Your task to perform on an android device: toggle wifi Image 0: 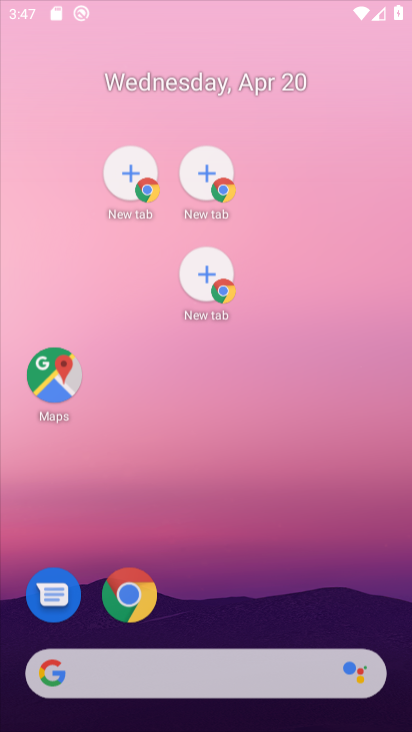
Step 0: drag from (147, 279) to (107, 63)
Your task to perform on an android device: toggle wifi Image 1: 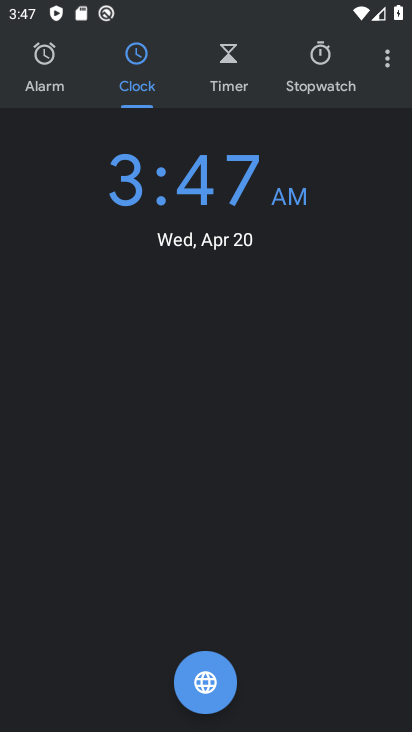
Step 1: press home button
Your task to perform on an android device: toggle wifi Image 2: 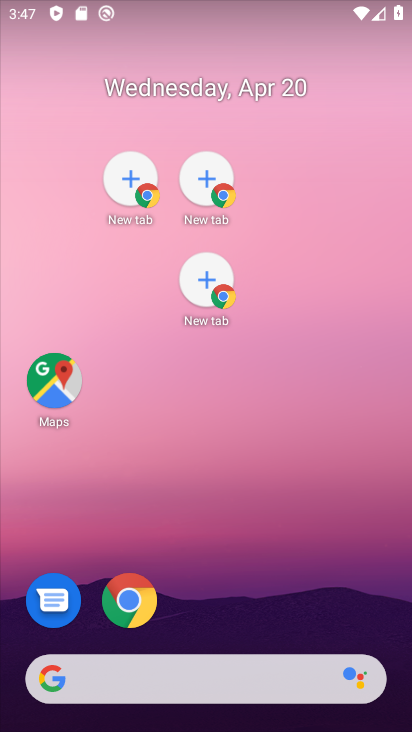
Step 2: drag from (308, 655) to (237, 140)
Your task to perform on an android device: toggle wifi Image 3: 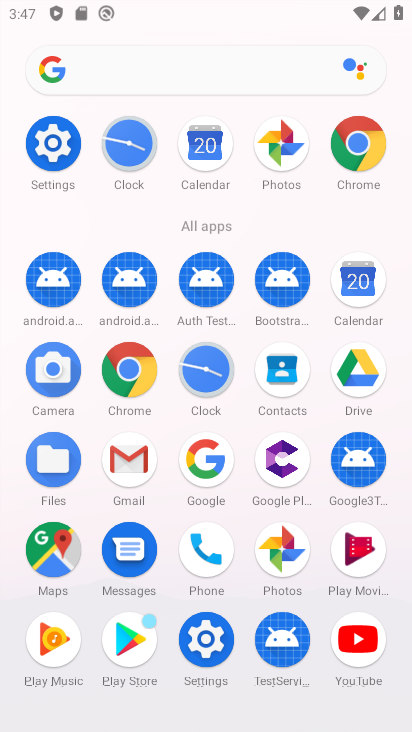
Step 3: drag from (244, 556) to (174, 15)
Your task to perform on an android device: toggle wifi Image 4: 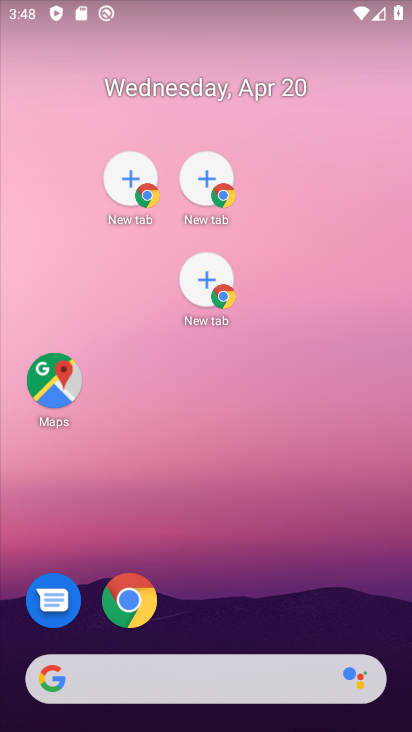
Step 4: drag from (323, 647) to (213, 7)
Your task to perform on an android device: toggle wifi Image 5: 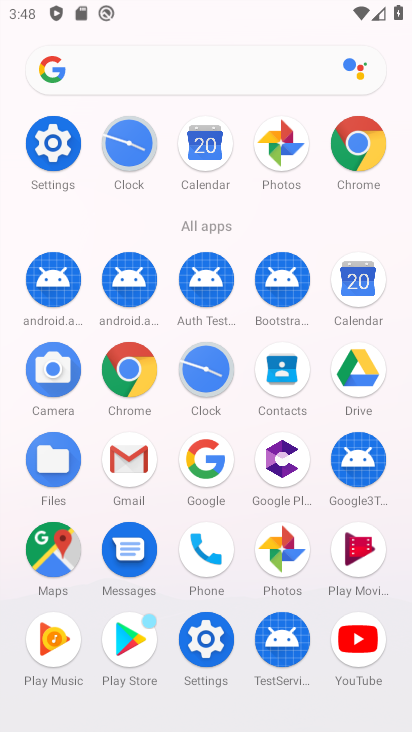
Step 5: click (53, 159)
Your task to perform on an android device: toggle wifi Image 6: 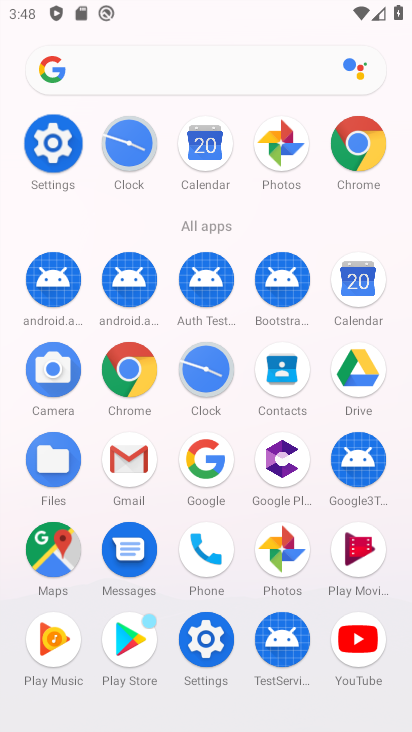
Step 6: click (53, 159)
Your task to perform on an android device: toggle wifi Image 7: 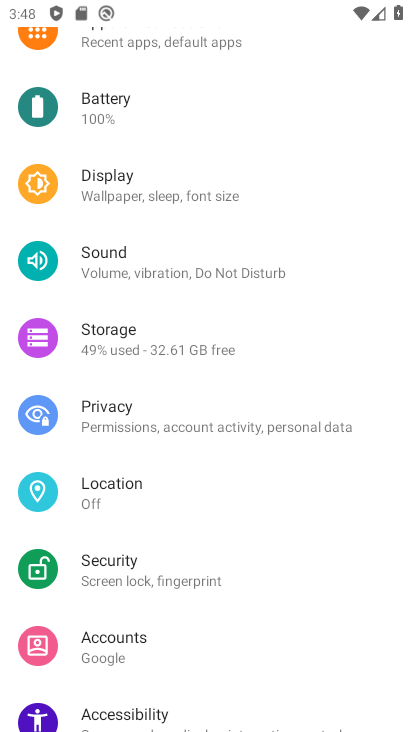
Step 7: drag from (125, 161) to (185, 493)
Your task to perform on an android device: toggle wifi Image 8: 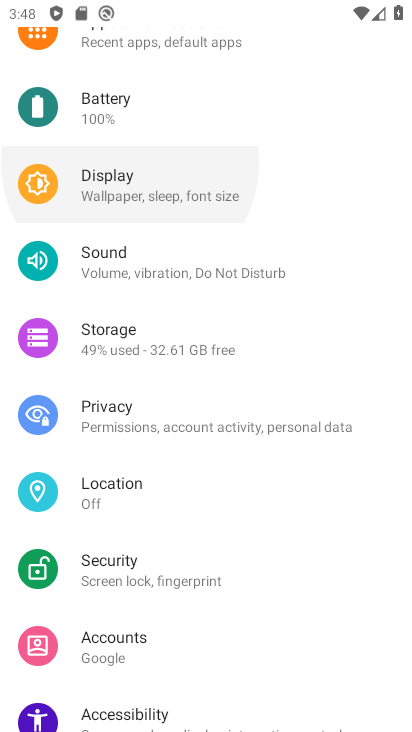
Step 8: drag from (169, 205) to (182, 402)
Your task to perform on an android device: toggle wifi Image 9: 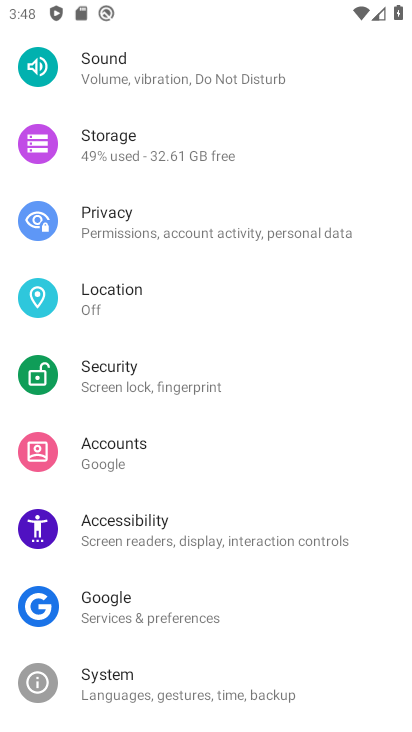
Step 9: drag from (183, 183) to (227, 420)
Your task to perform on an android device: toggle wifi Image 10: 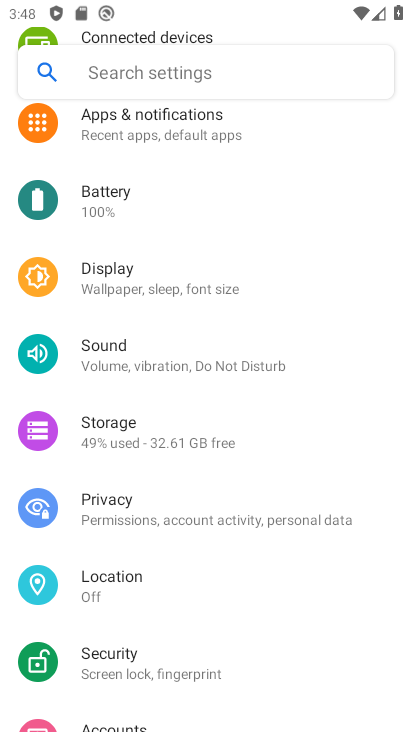
Step 10: drag from (173, 130) to (265, 417)
Your task to perform on an android device: toggle wifi Image 11: 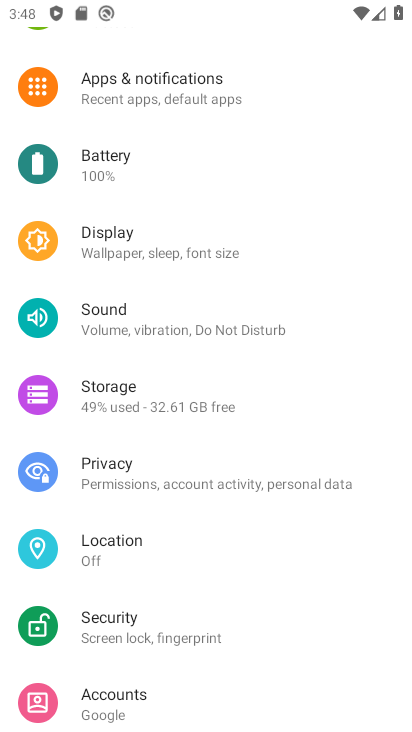
Step 11: drag from (116, 178) to (175, 382)
Your task to perform on an android device: toggle wifi Image 12: 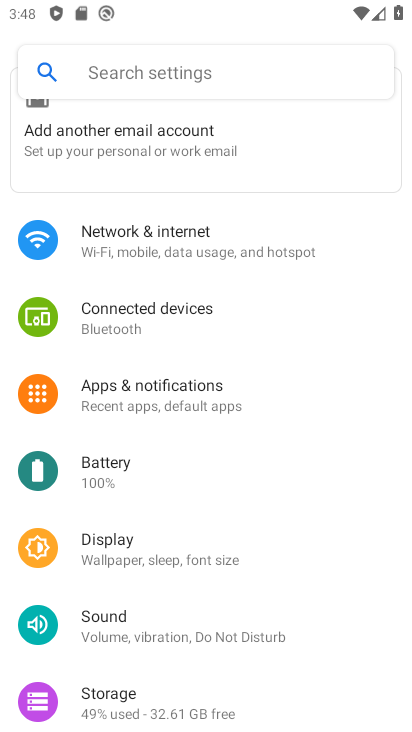
Step 12: click (162, 241)
Your task to perform on an android device: toggle wifi Image 13: 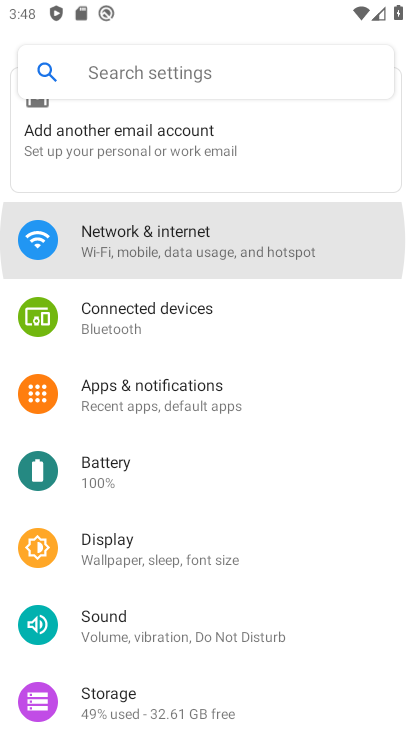
Step 13: click (162, 242)
Your task to perform on an android device: toggle wifi Image 14: 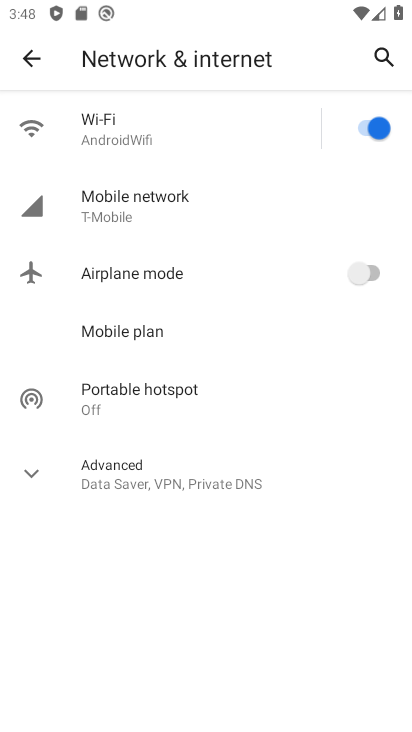
Step 14: click (376, 133)
Your task to perform on an android device: toggle wifi Image 15: 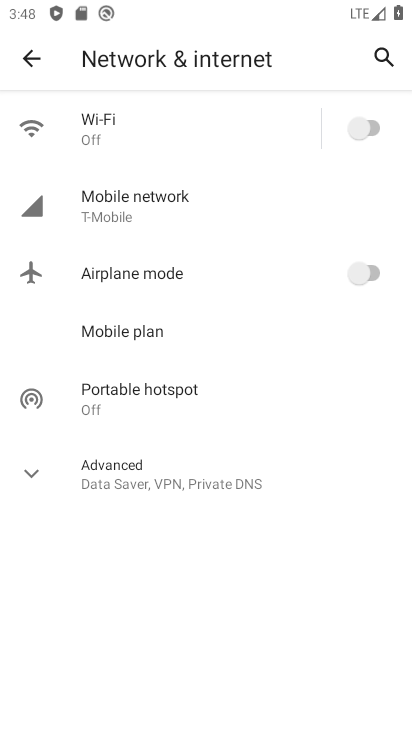
Step 15: task complete